Your task to perform on an android device: turn notification dots off Image 0: 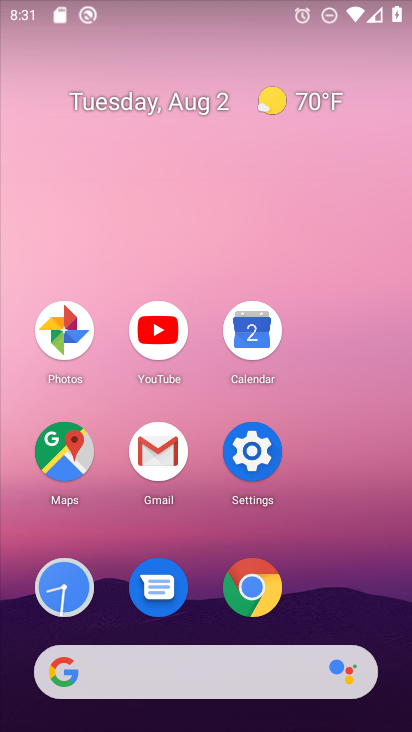
Step 0: click (248, 449)
Your task to perform on an android device: turn notification dots off Image 1: 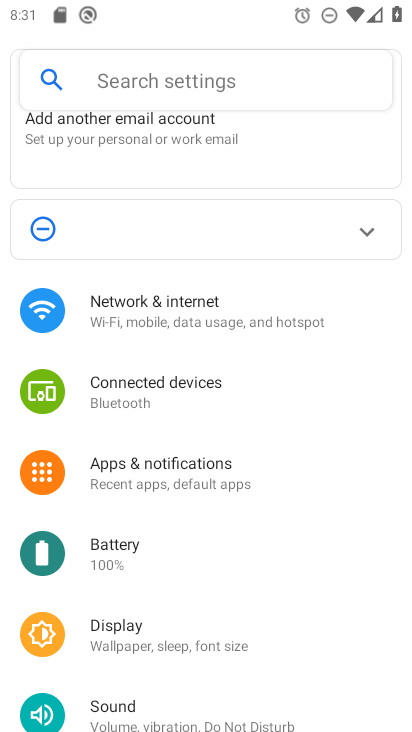
Step 1: click (163, 468)
Your task to perform on an android device: turn notification dots off Image 2: 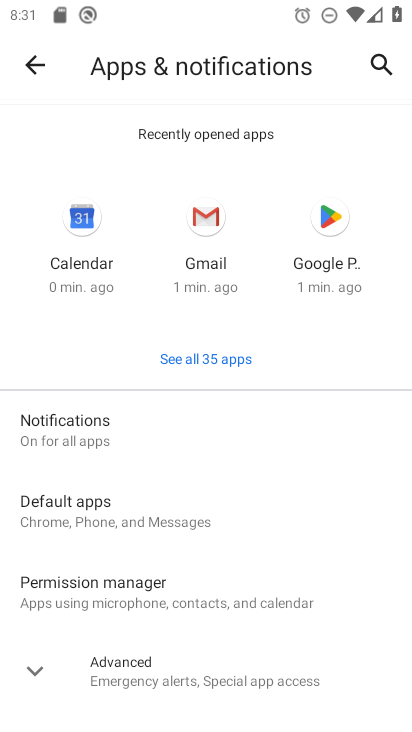
Step 2: click (86, 420)
Your task to perform on an android device: turn notification dots off Image 3: 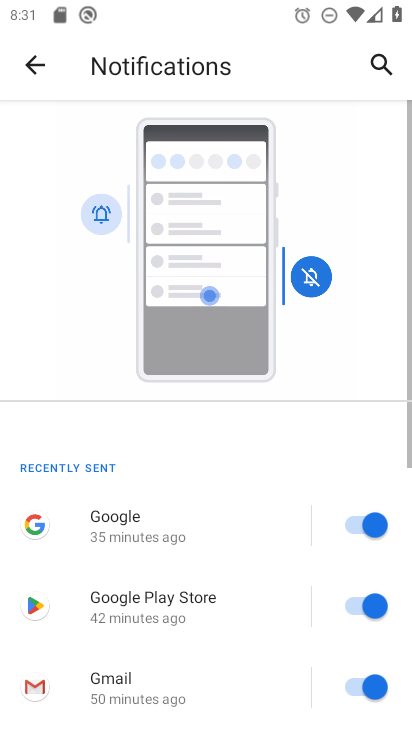
Step 3: drag from (268, 572) to (269, 168)
Your task to perform on an android device: turn notification dots off Image 4: 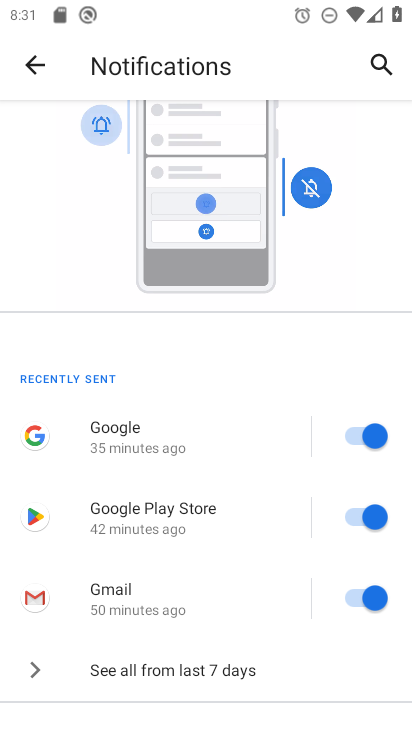
Step 4: drag from (210, 581) to (225, 142)
Your task to perform on an android device: turn notification dots off Image 5: 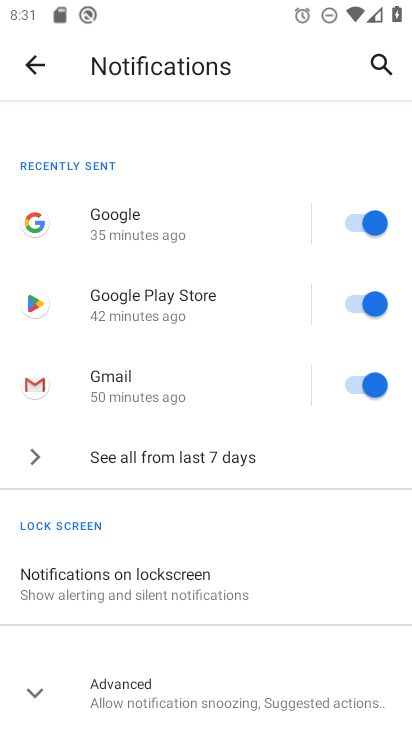
Step 5: drag from (210, 601) to (204, 311)
Your task to perform on an android device: turn notification dots off Image 6: 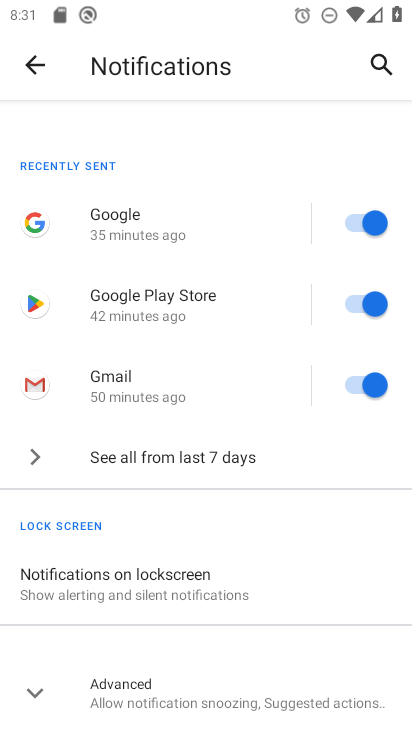
Step 6: click (33, 693)
Your task to perform on an android device: turn notification dots off Image 7: 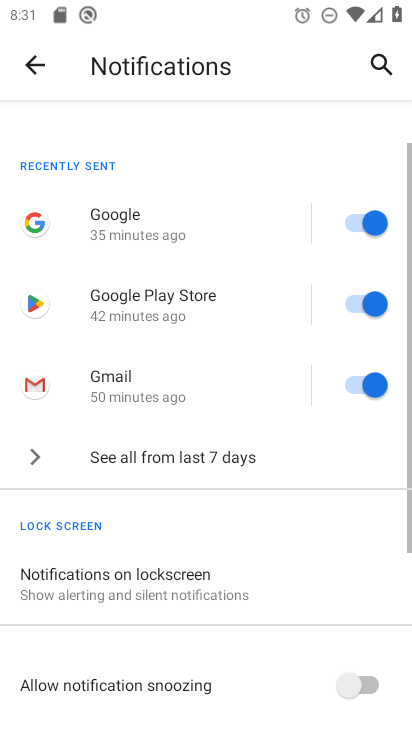
Step 7: drag from (248, 651) to (288, 261)
Your task to perform on an android device: turn notification dots off Image 8: 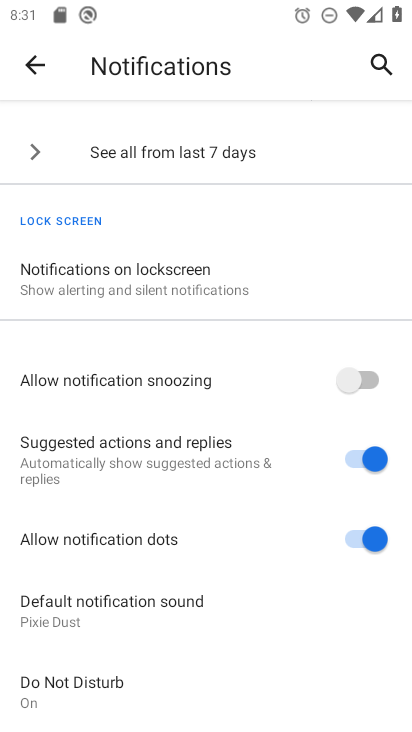
Step 8: click (373, 537)
Your task to perform on an android device: turn notification dots off Image 9: 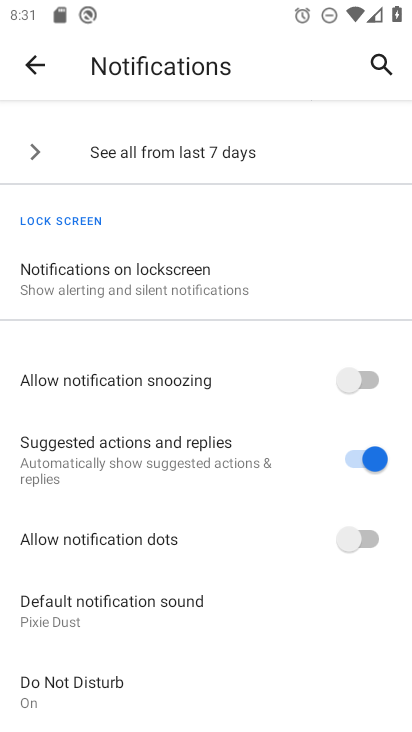
Step 9: task complete